Your task to perform on an android device: turn off wifi Image 0: 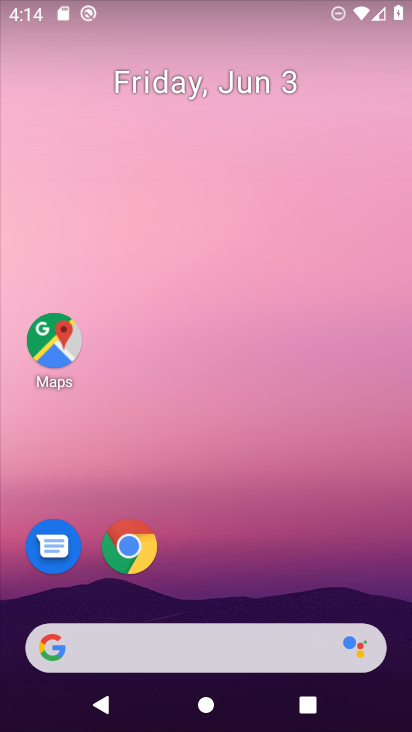
Step 0: drag from (226, 552) to (236, 1)
Your task to perform on an android device: turn off wifi Image 1: 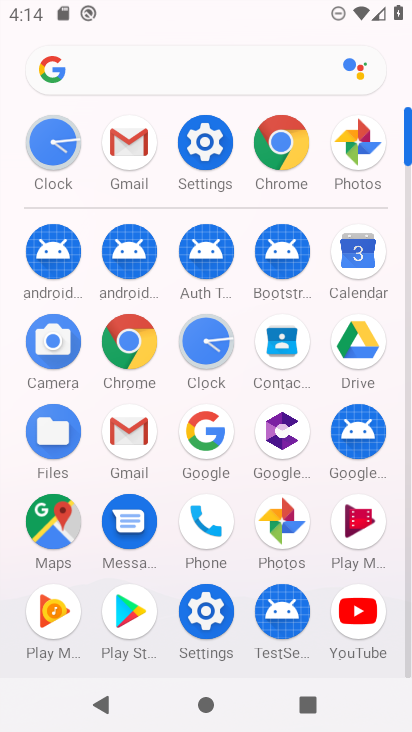
Step 1: click (202, 142)
Your task to perform on an android device: turn off wifi Image 2: 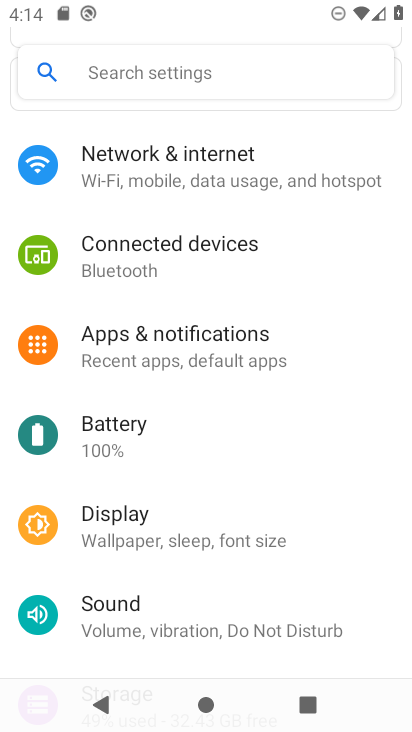
Step 2: click (243, 175)
Your task to perform on an android device: turn off wifi Image 3: 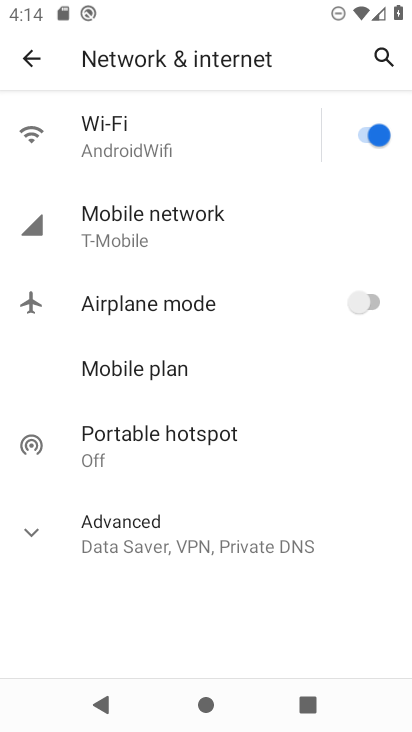
Step 3: click (367, 134)
Your task to perform on an android device: turn off wifi Image 4: 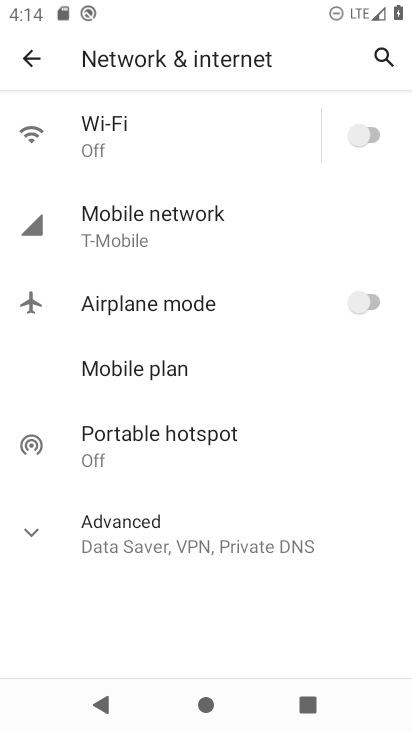
Step 4: task complete